Your task to perform on an android device: Open display settings Image 0: 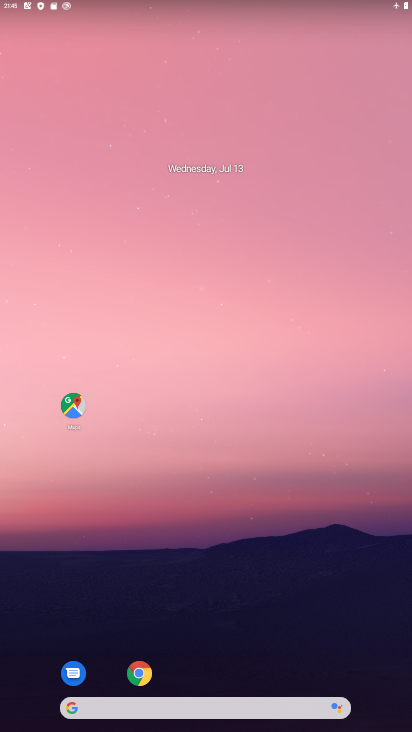
Step 0: drag from (207, 663) to (213, 119)
Your task to perform on an android device: Open display settings Image 1: 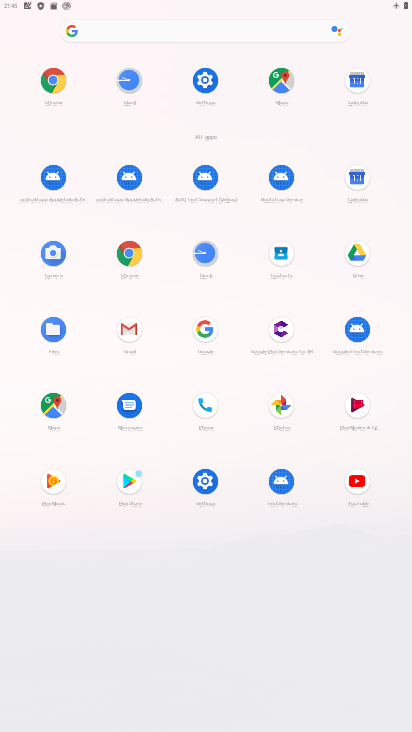
Step 1: click (207, 68)
Your task to perform on an android device: Open display settings Image 2: 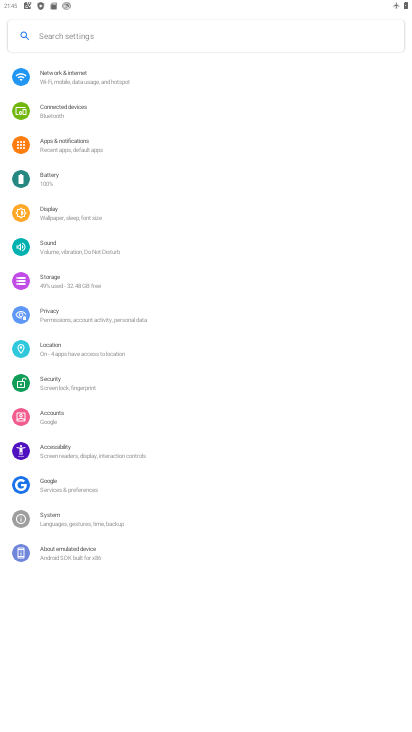
Step 2: click (74, 210)
Your task to perform on an android device: Open display settings Image 3: 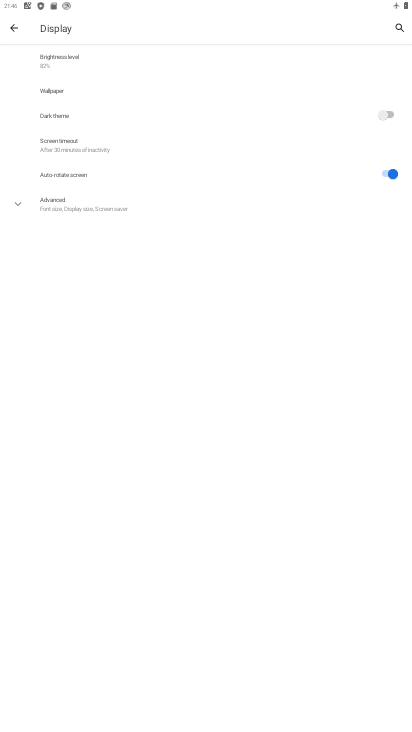
Step 3: task complete